Your task to perform on an android device: What's the news in the Philippines? Image 0: 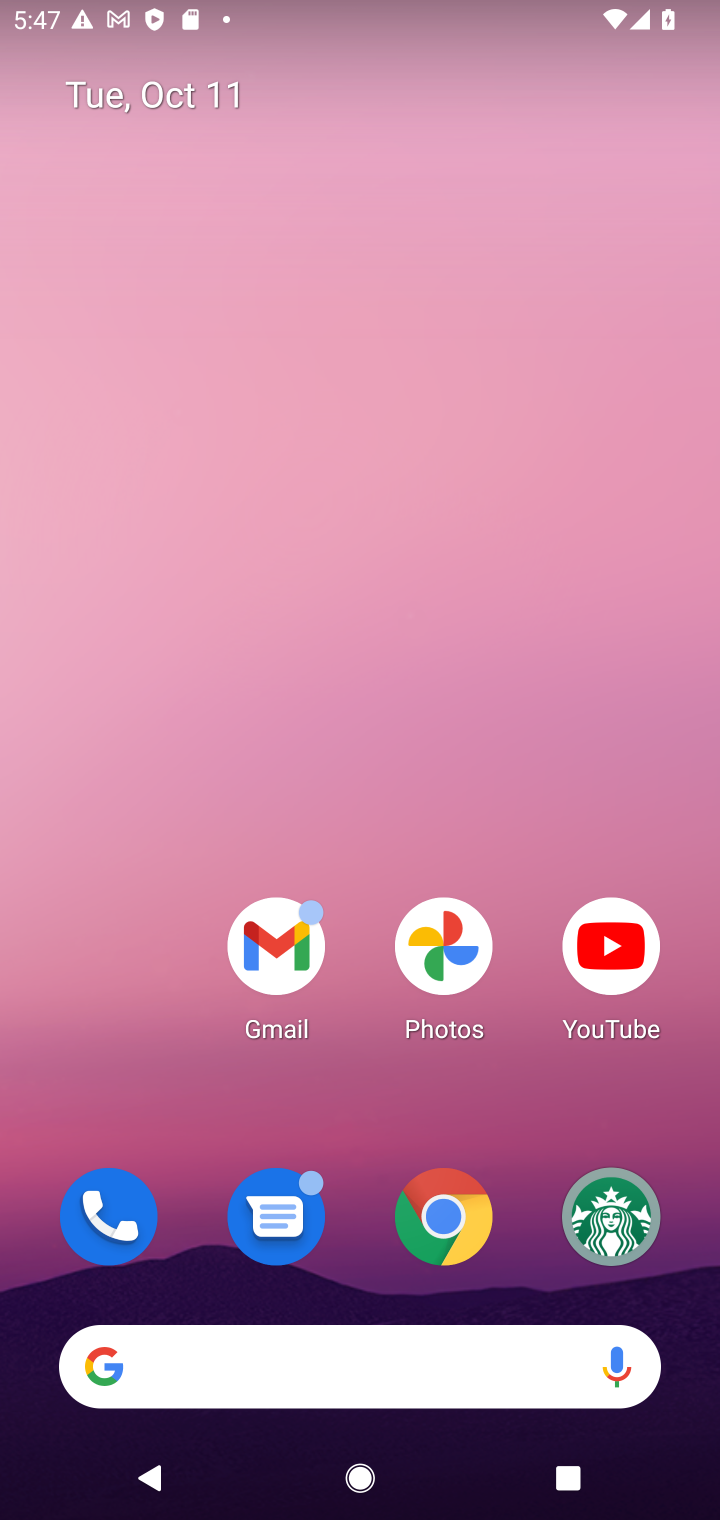
Step 0: click (440, 1217)
Your task to perform on an android device: What's the news in the Philippines? Image 1: 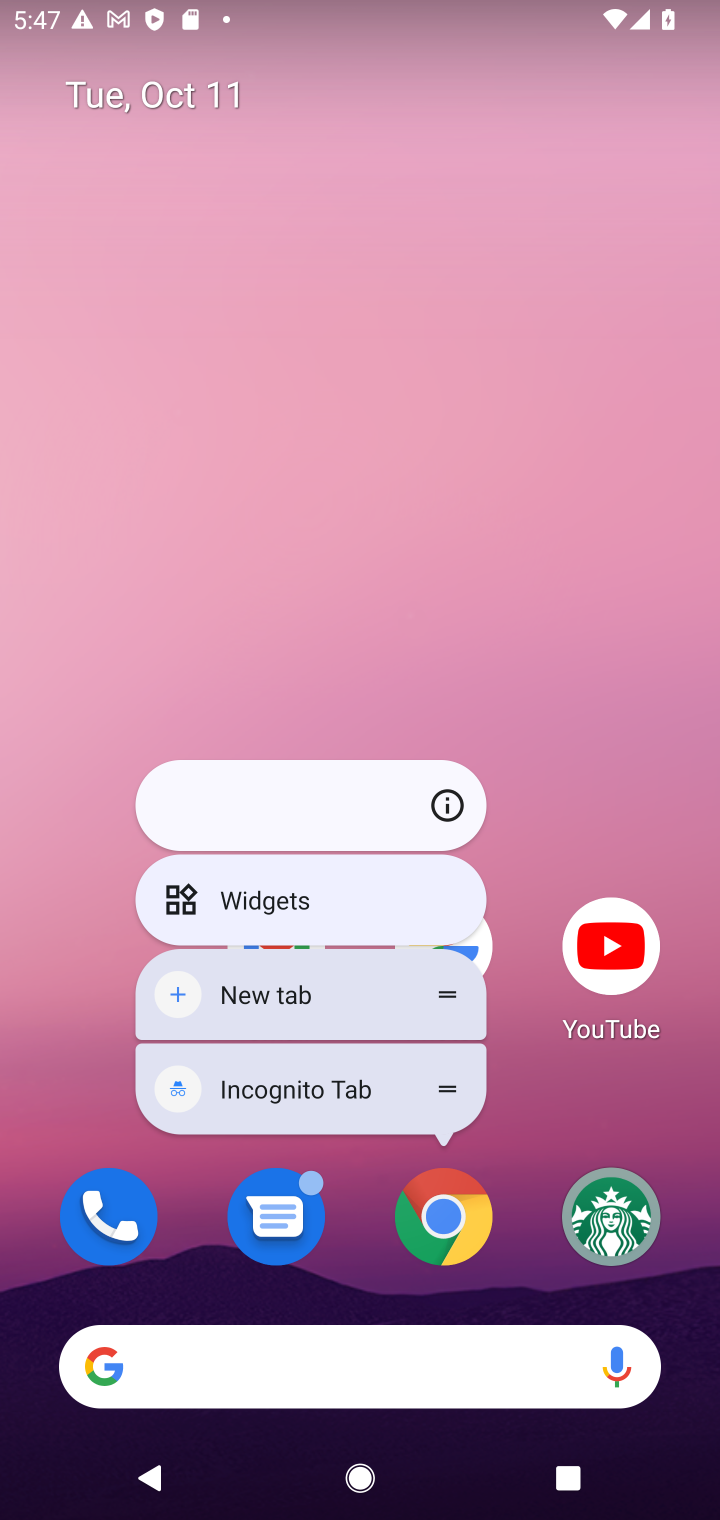
Step 1: click (440, 1217)
Your task to perform on an android device: What's the news in the Philippines? Image 2: 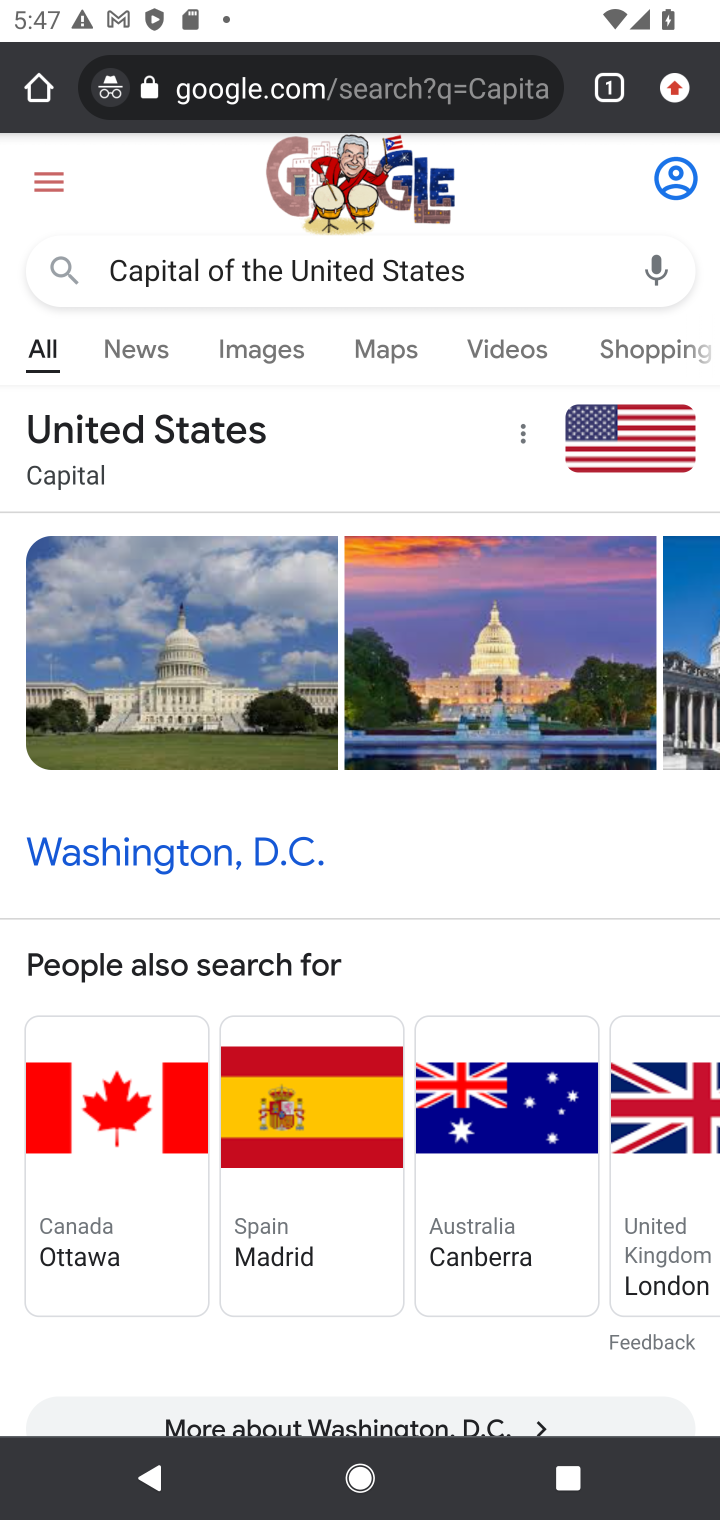
Step 2: click (342, 101)
Your task to perform on an android device: What's the news in the Philippines? Image 3: 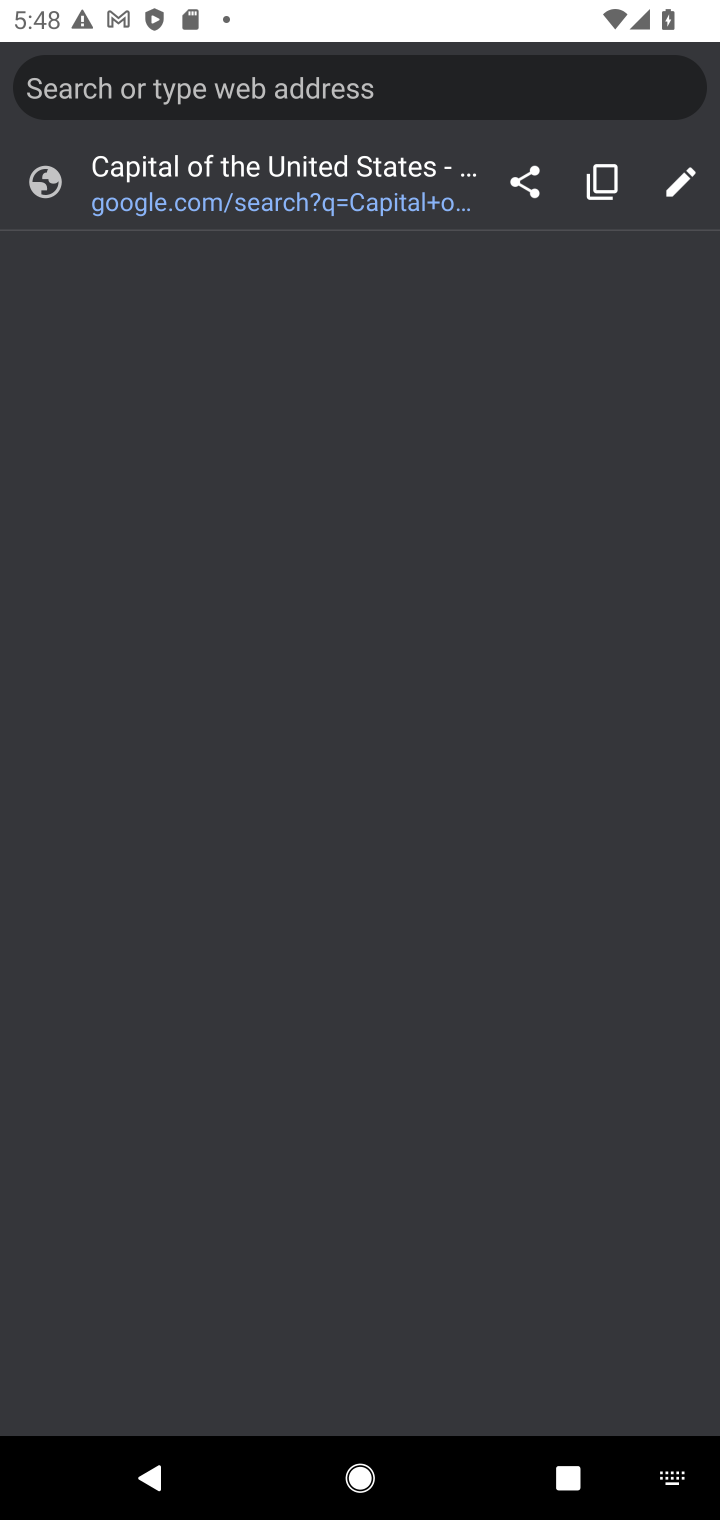
Step 3: type "What's the news in the Phillipines?"
Your task to perform on an android device: What's the news in the Philippines? Image 4: 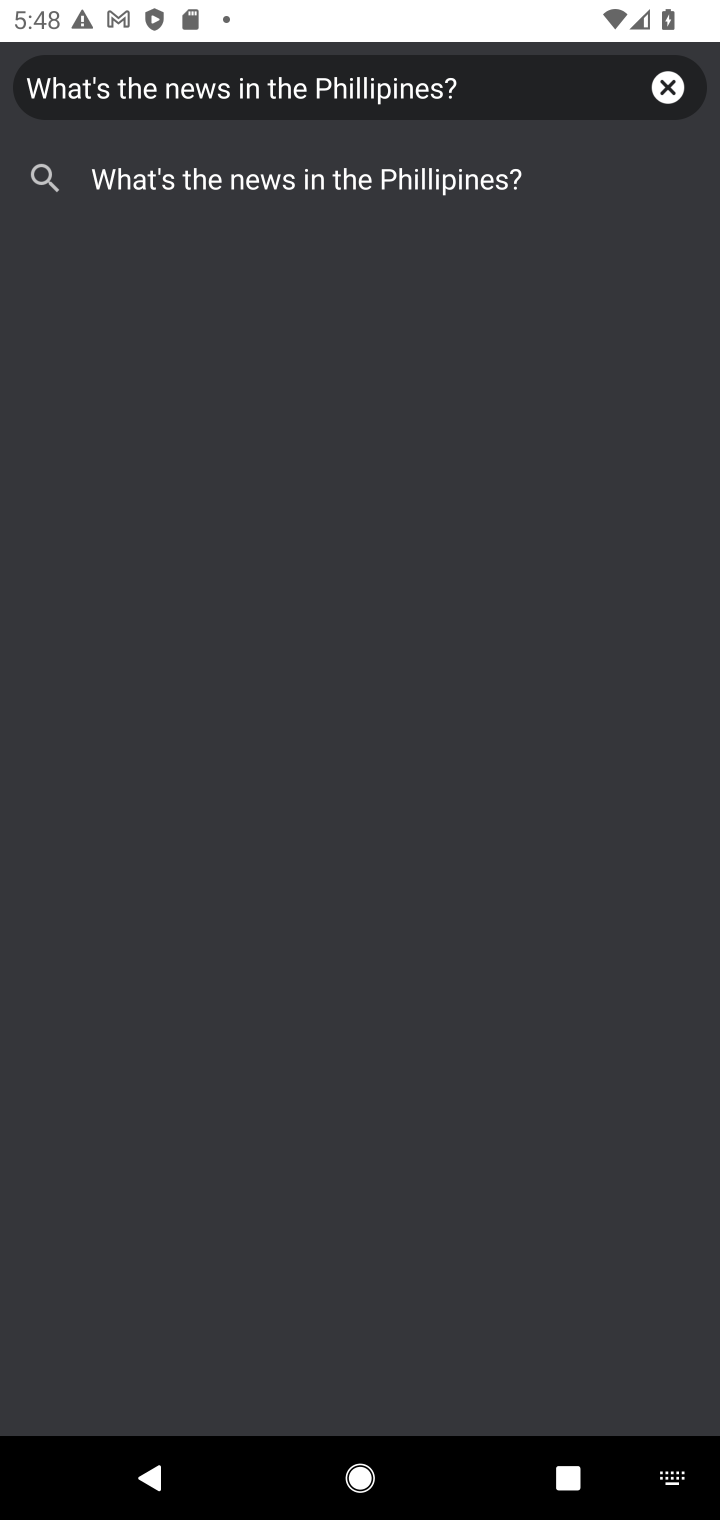
Step 4: click (379, 181)
Your task to perform on an android device: What's the news in the Philippines? Image 5: 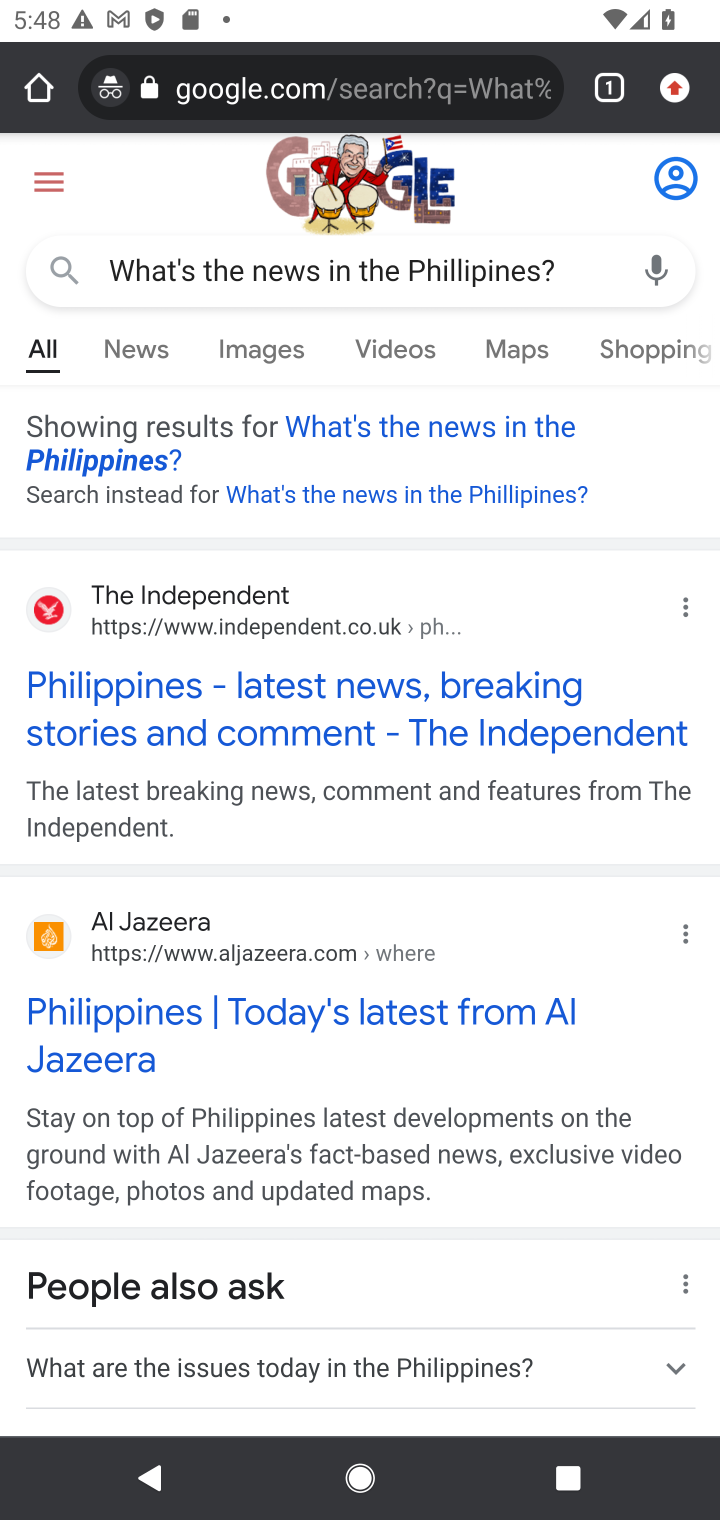
Step 5: click (331, 1020)
Your task to perform on an android device: What's the news in the Philippines? Image 6: 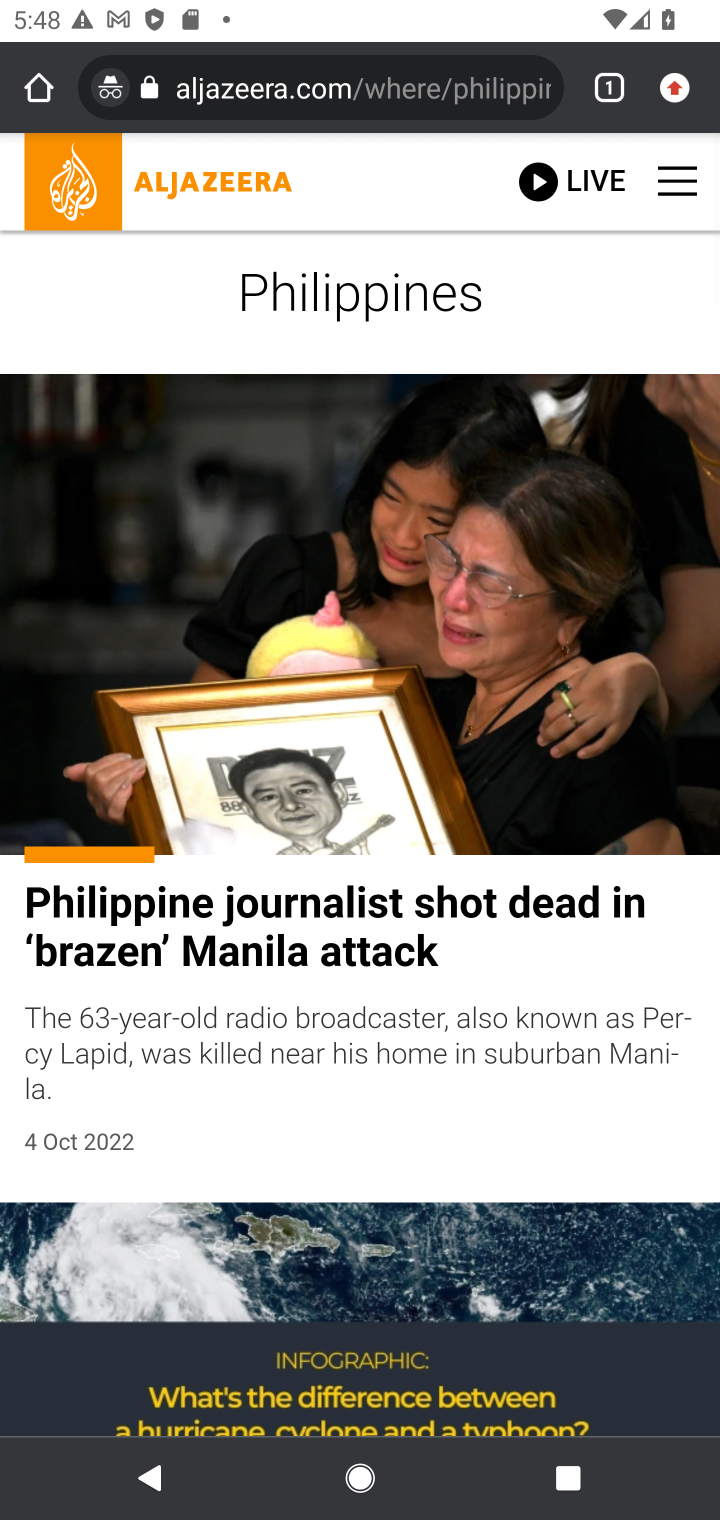
Step 6: drag from (355, 1208) to (510, 718)
Your task to perform on an android device: What's the news in the Philippines? Image 7: 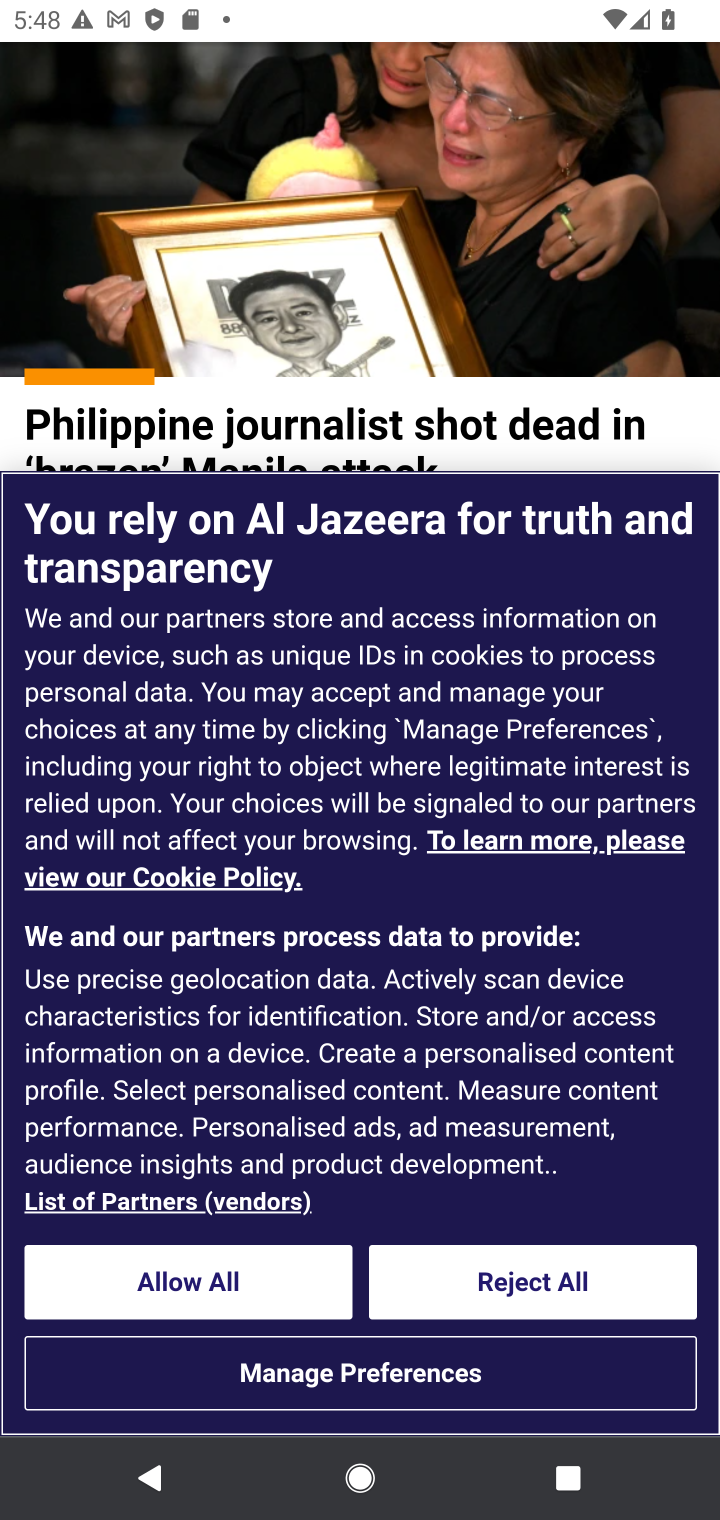
Step 7: click (200, 1288)
Your task to perform on an android device: What's the news in the Philippines? Image 8: 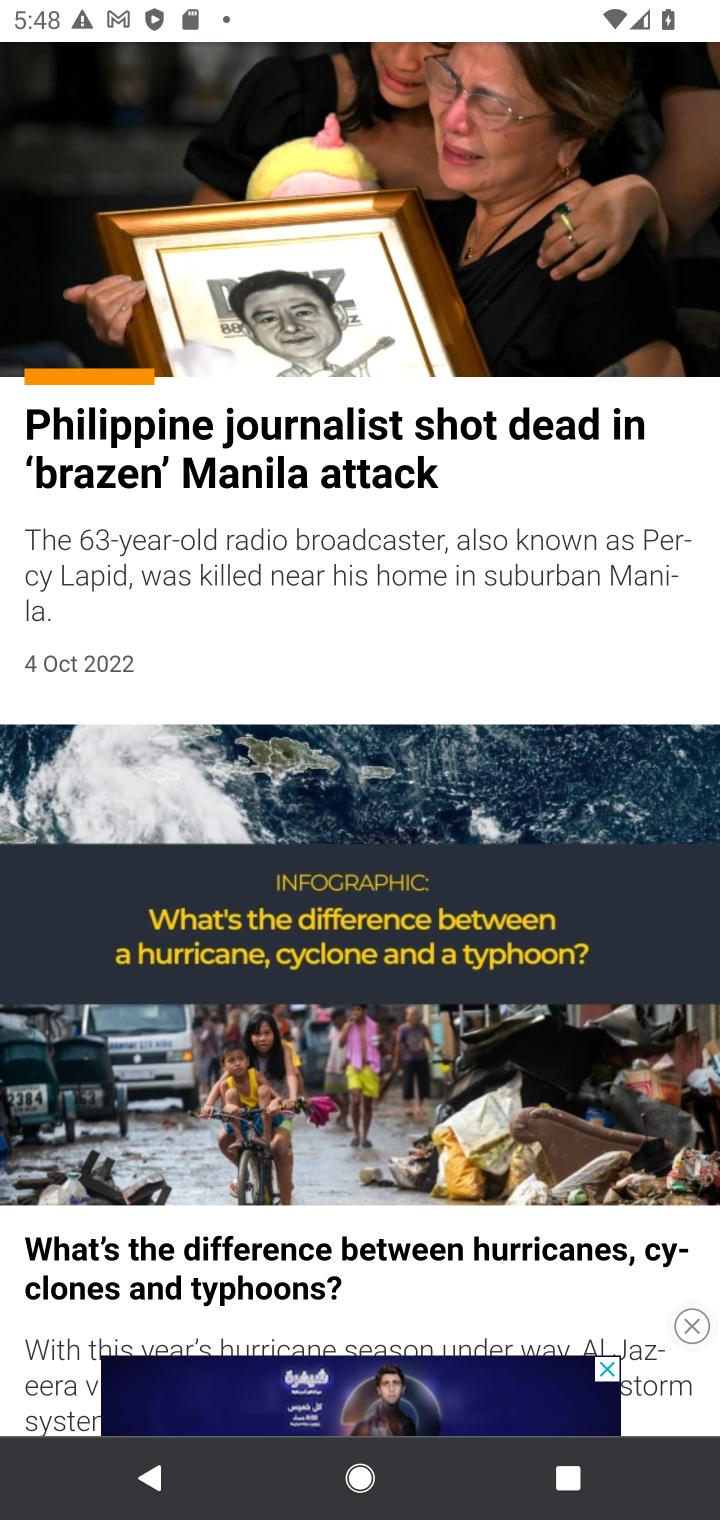
Step 8: task complete